Your task to perform on an android device: clear all cookies in the chrome app Image 0: 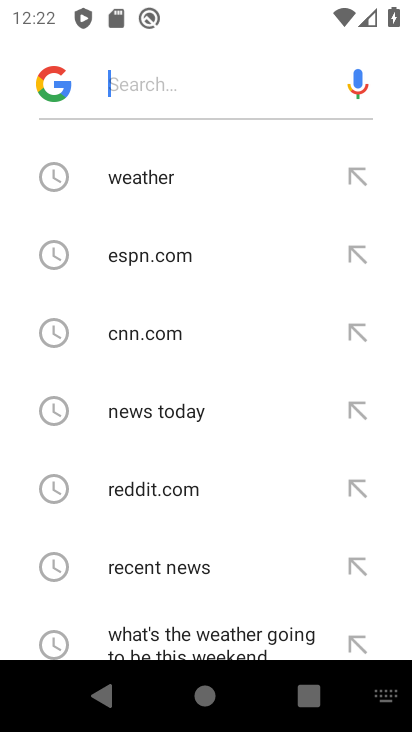
Step 0: press home button
Your task to perform on an android device: clear all cookies in the chrome app Image 1: 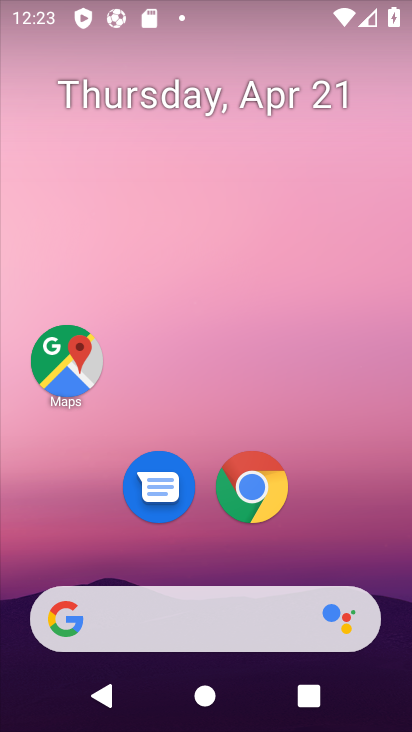
Step 1: drag from (341, 236) to (341, 160)
Your task to perform on an android device: clear all cookies in the chrome app Image 2: 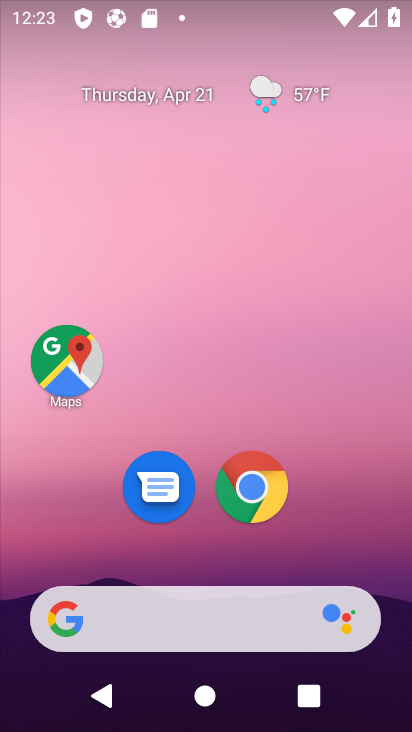
Step 2: drag from (353, 477) to (338, 166)
Your task to perform on an android device: clear all cookies in the chrome app Image 3: 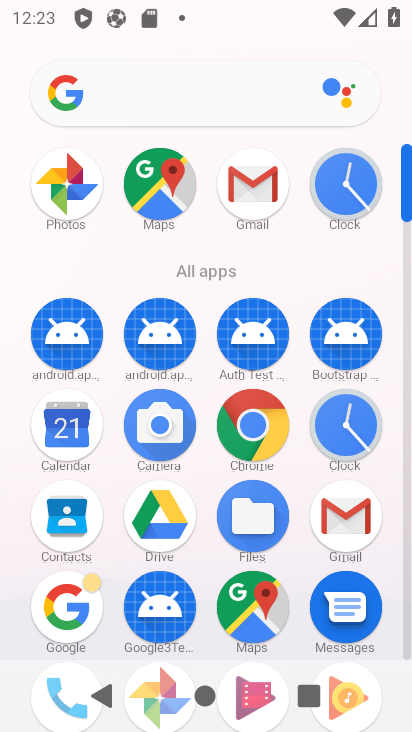
Step 3: drag from (294, 525) to (295, 303)
Your task to perform on an android device: clear all cookies in the chrome app Image 4: 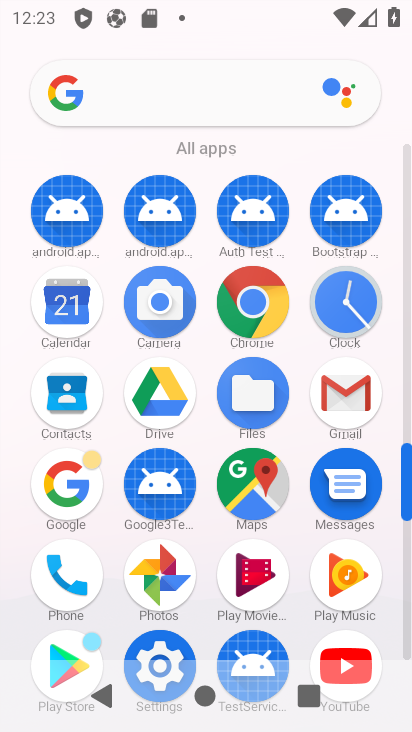
Step 4: click (281, 298)
Your task to perform on an android device: clear all cookies in the chrome app Image 5: 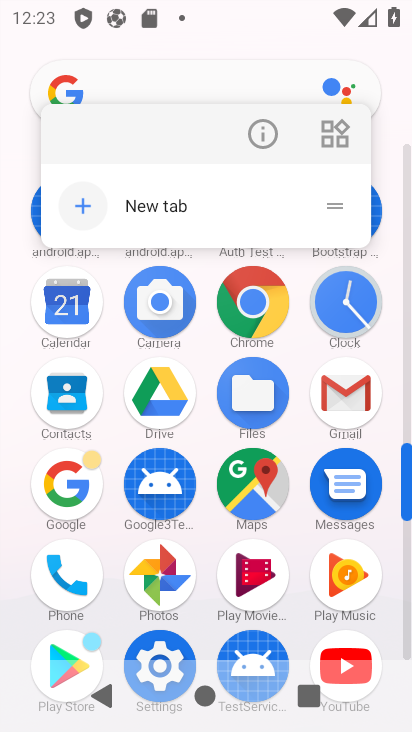
Step 5: click (271, 305)
Your task to perform on an android device: clear all cookies in the chrome app Image 6: 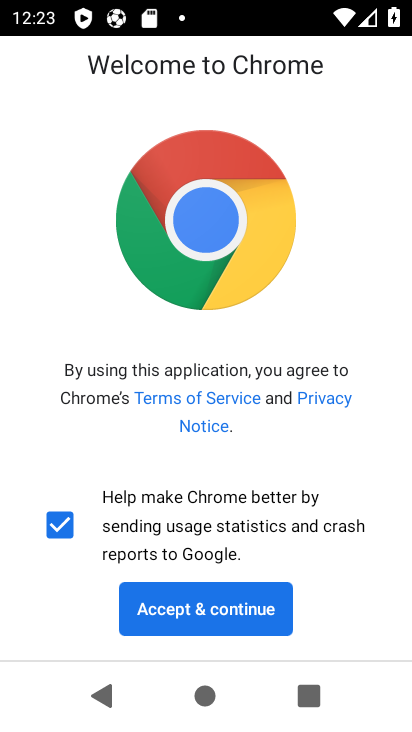
Step 6: click (198, 609)
Your task to perform on an android device: clear all cookies in the chrome app Image 7: 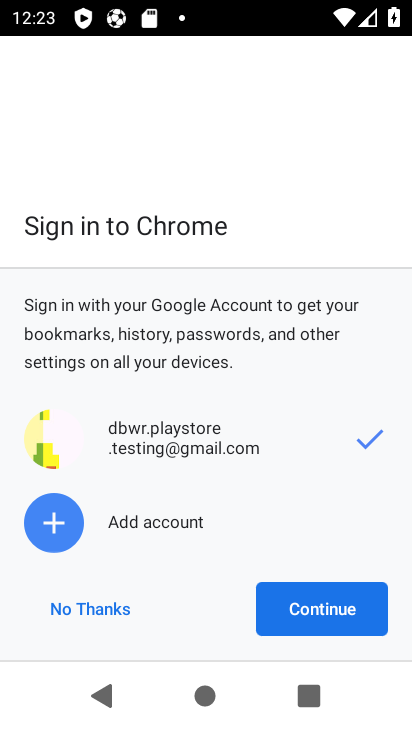
Step 7: click (311, 629)
Your task to perform on an android device: clear all cookies in the chrome app Image 8: 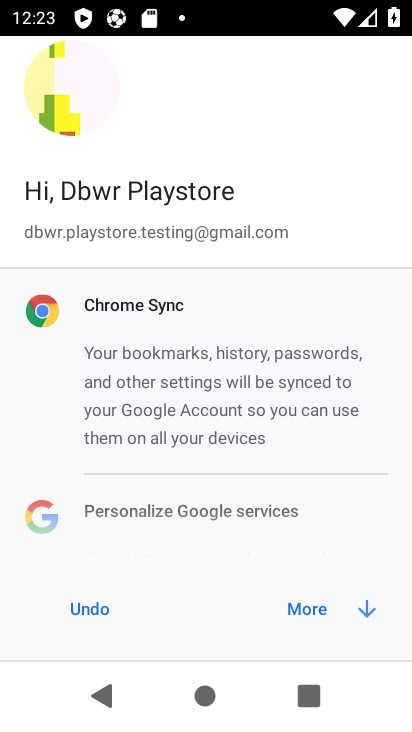
Step 8: click (307, 618)
Your task to perform on an android device: clear all cookies in the chrome app Image 9: 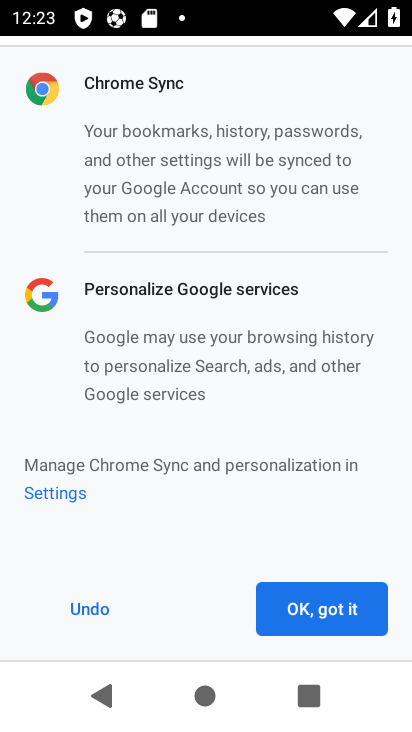
Step 9: click (307, 618)
Your task to perform on an android device: clear all cookies in the chrome app Image 10: 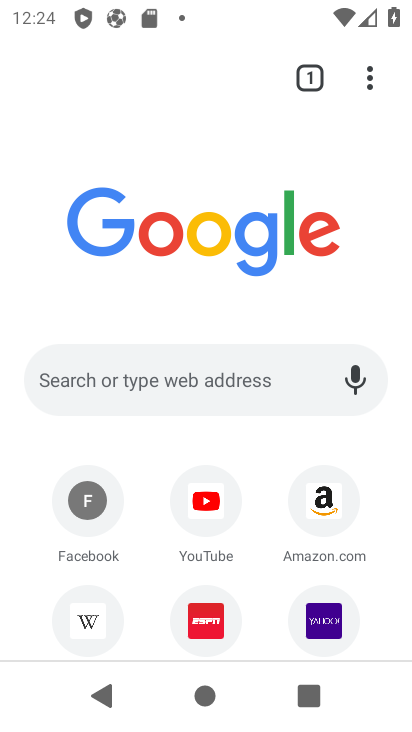
Step 10: task complete